Your task to perform on an android device: empty trash in the gmail app Image 0: 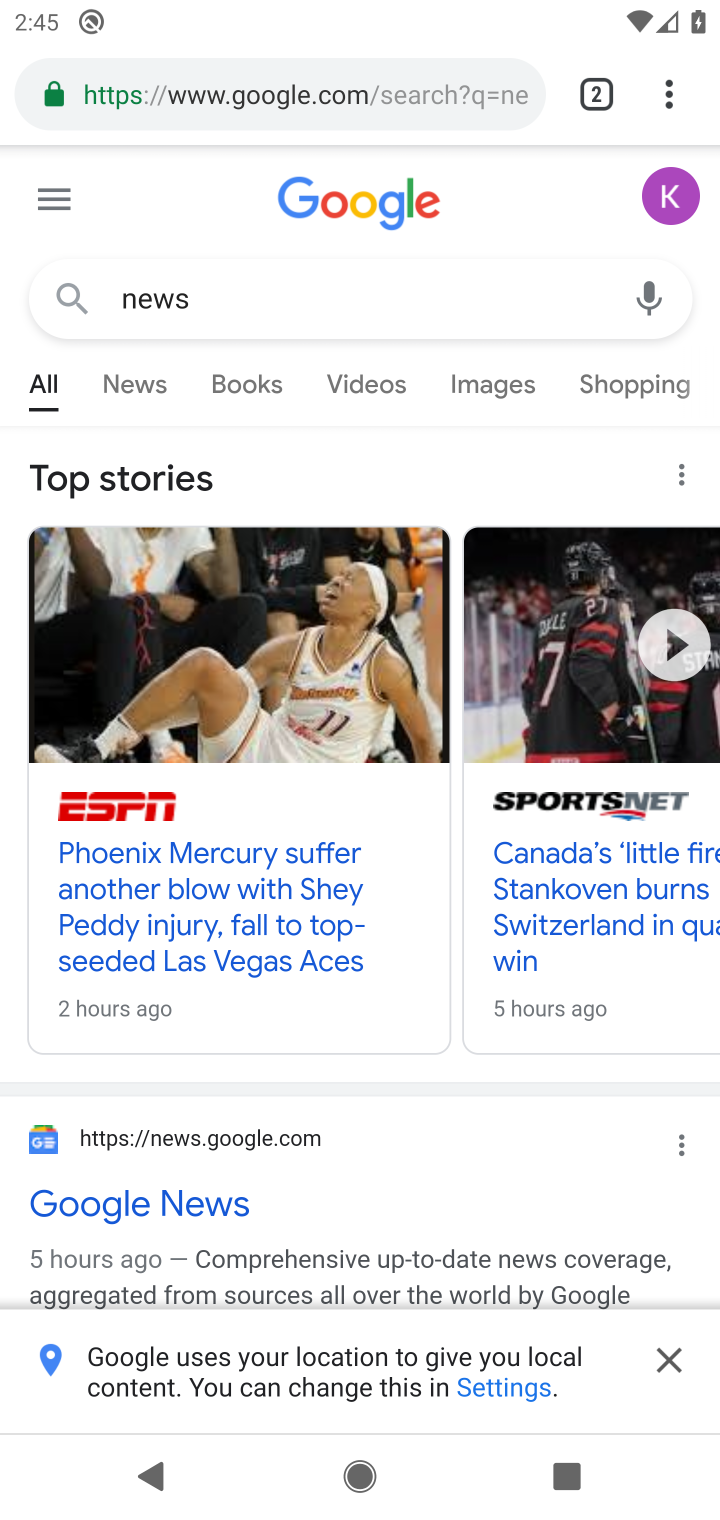
Step 0: press home button
Your task to perform on an android device: empty trash in the gmail app Image 1: 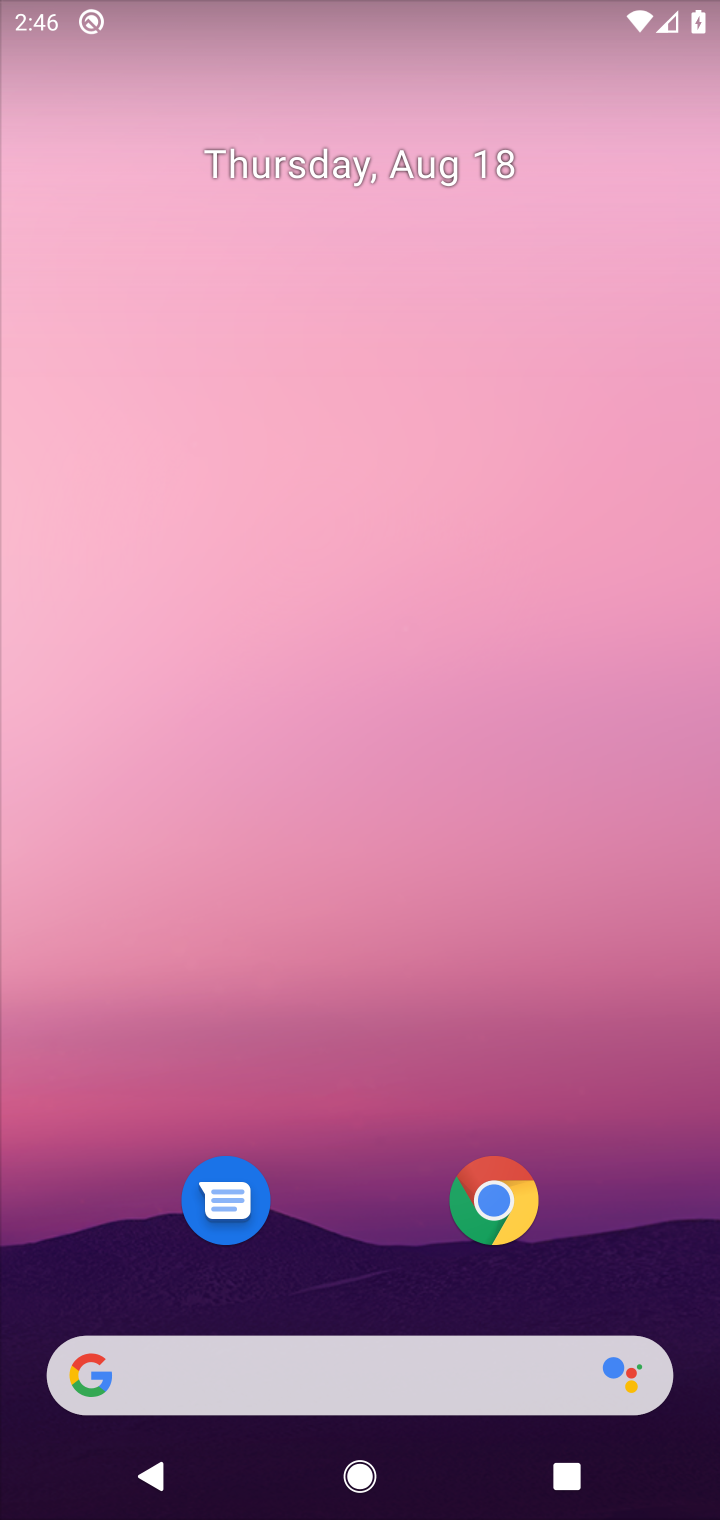
Step 1: drag from (314, 1115) to (379, 71)
Your task to perform on an android device: empty trash in the gmail app Image 2: 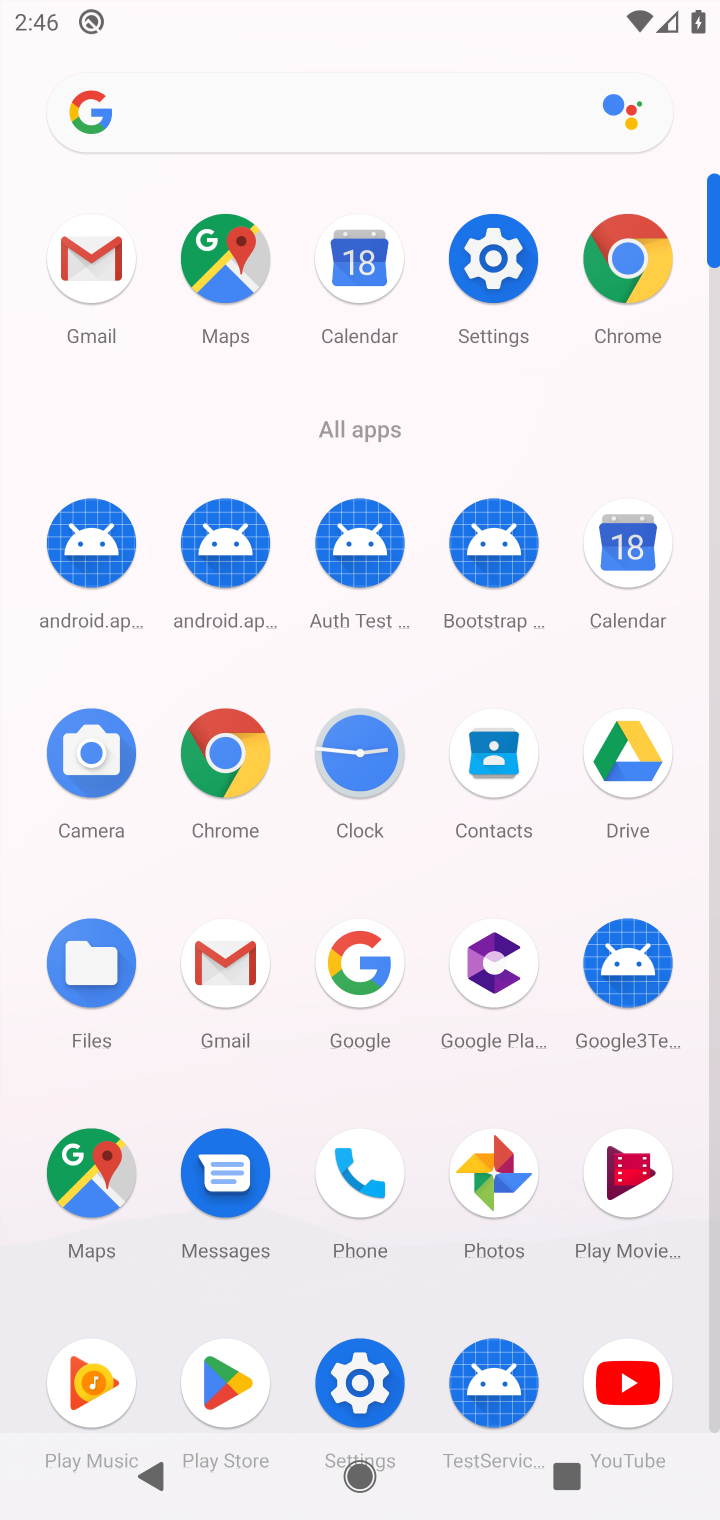
Step 2: click (218, 947)
Your task to perform on an android device: empty trash in the gmail app Image 3: 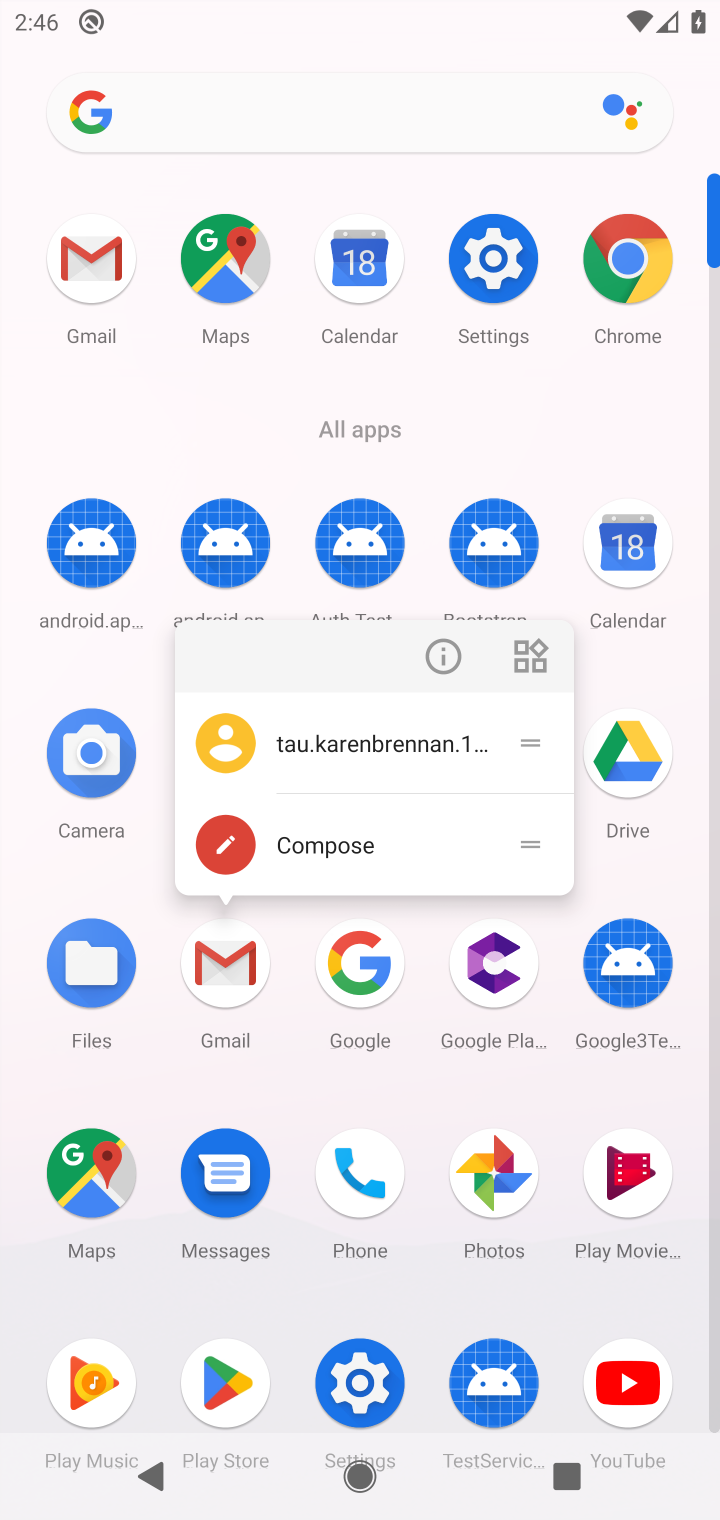
Step 3: click (229, 973)
Your task to perform on an android device: empty trash in the gmail app Image 4: 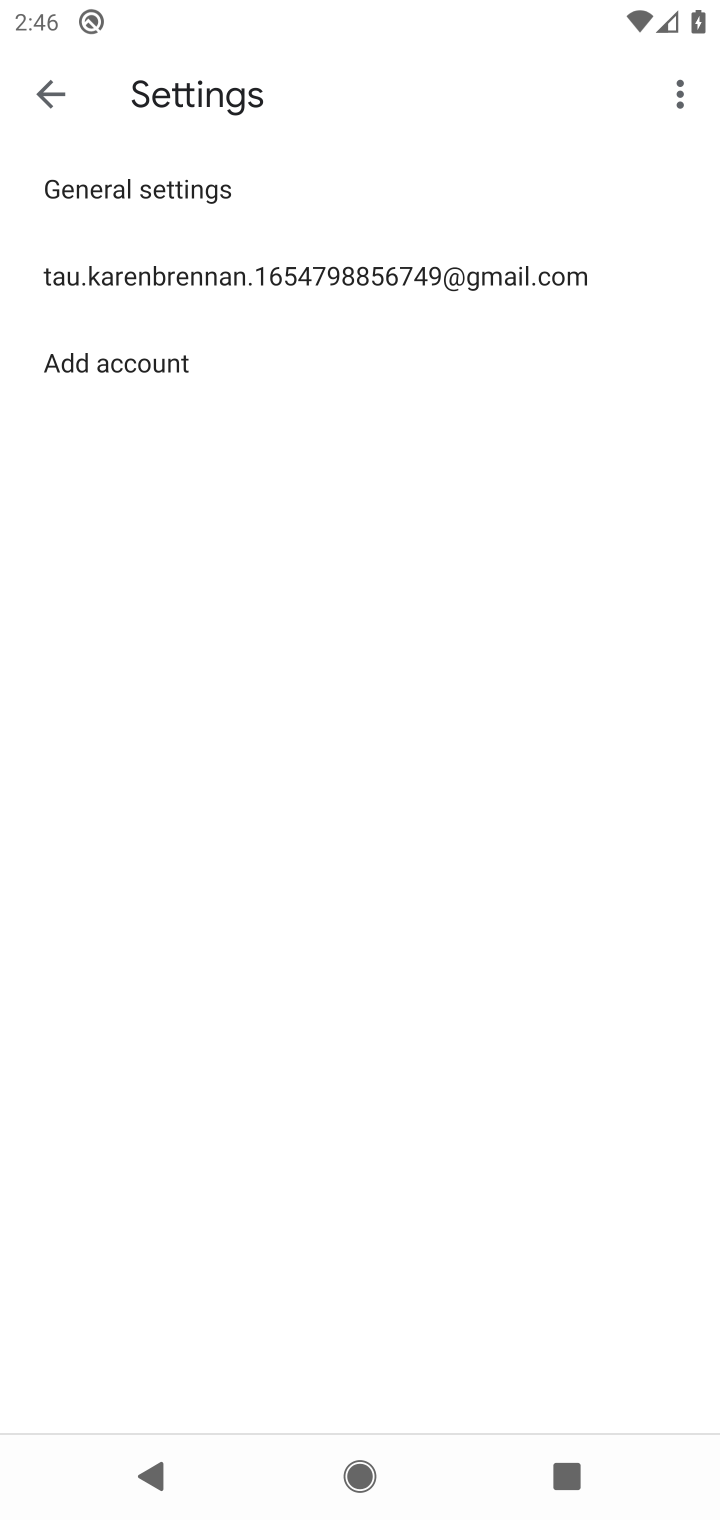
Step 4: click (273, 285)
Your task to perform on an android device: empty trash in the gmail app Image 5: 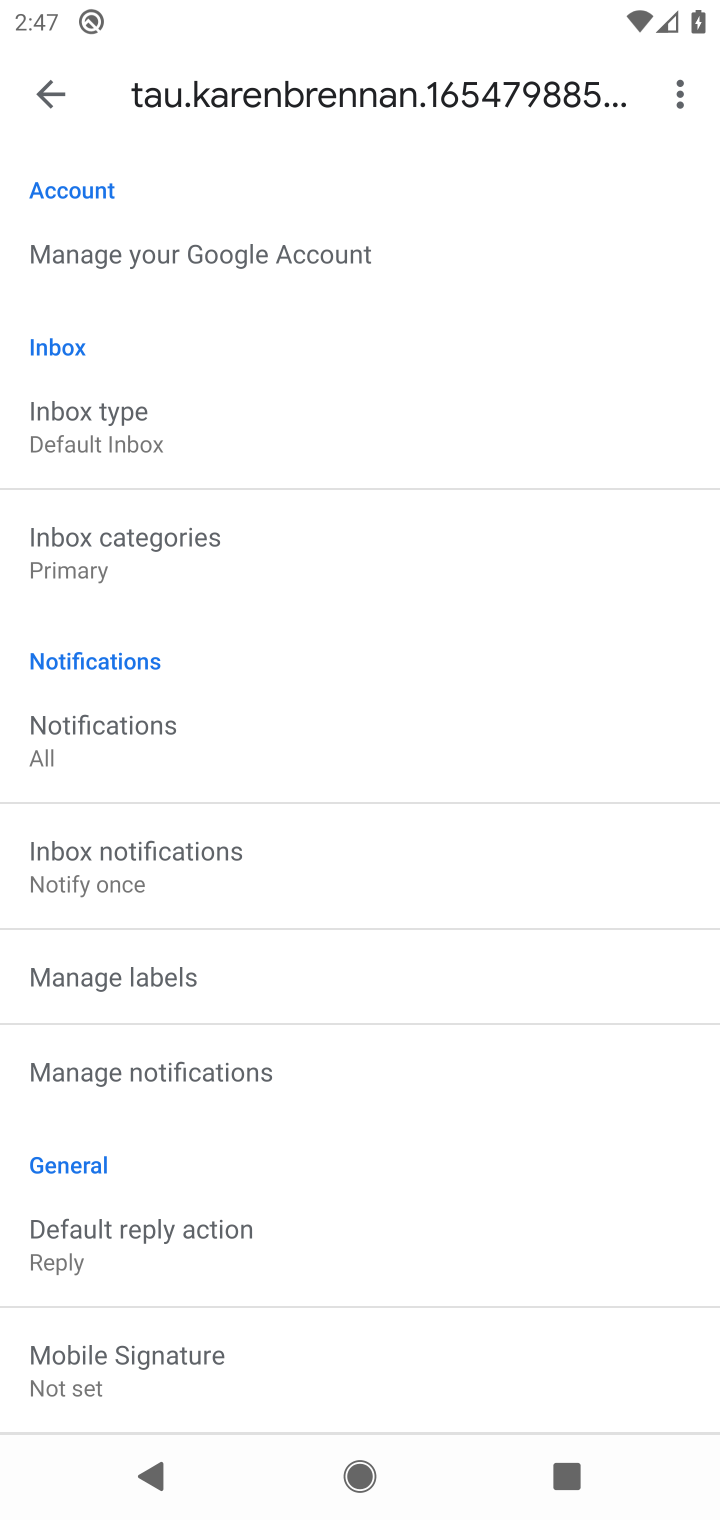
Step 5: drag from (360, 843) to (435, 155)
Your task to perform on an android device: empty trash in the gmail app Image 6: 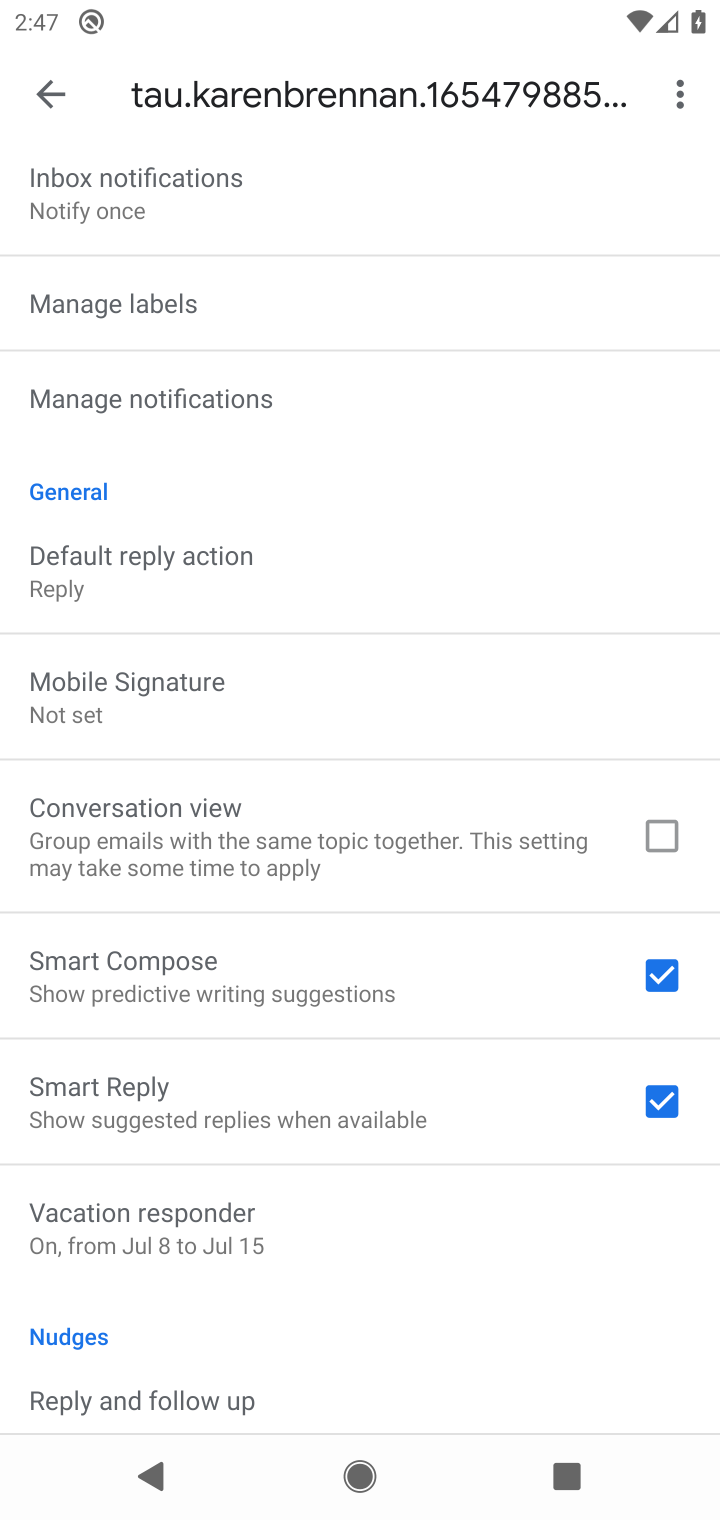
Step 6: click (40, 84)
Your task to perform on an android device: empty trash in the gmail app Image 7: 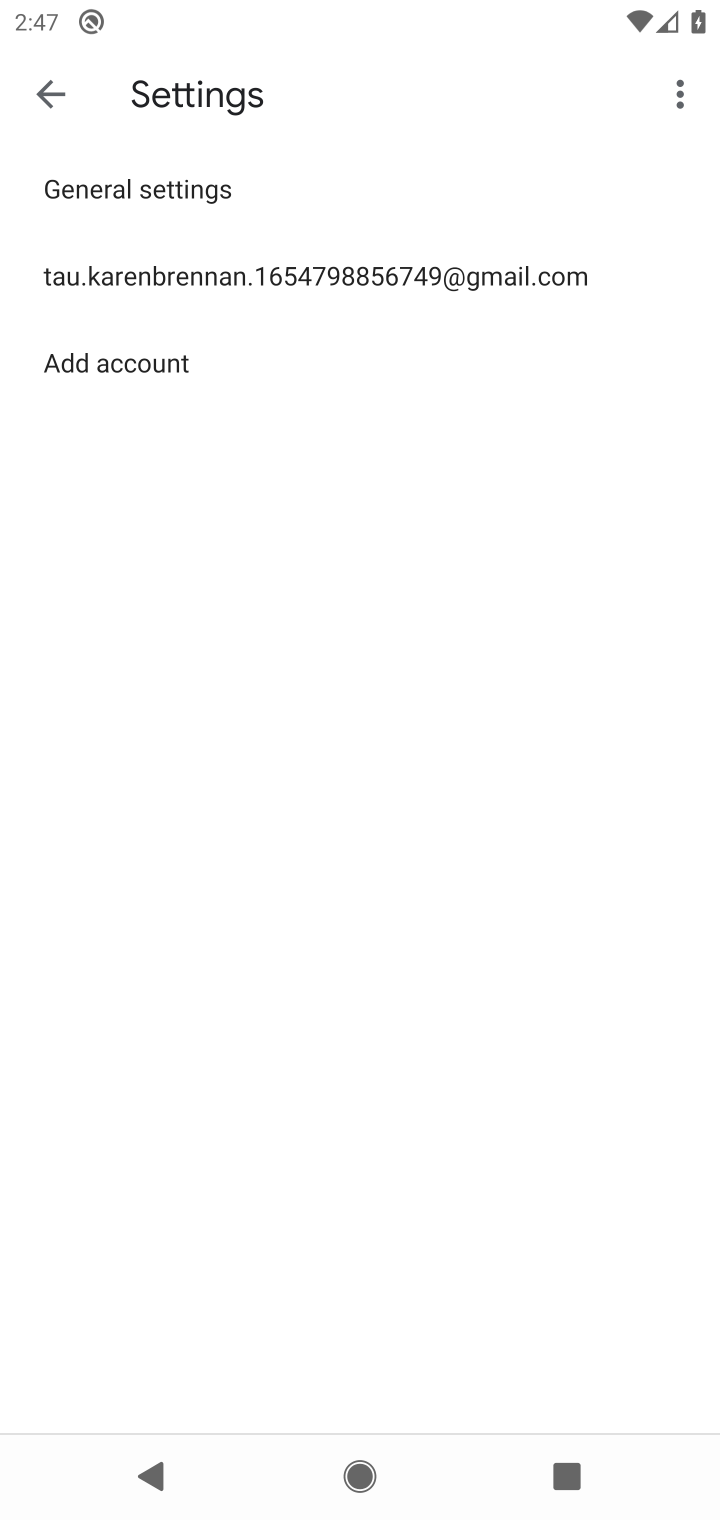
Step 7: click (39, 55)
Your task to perform on an android device: empty trash in the gmail app Image 8: 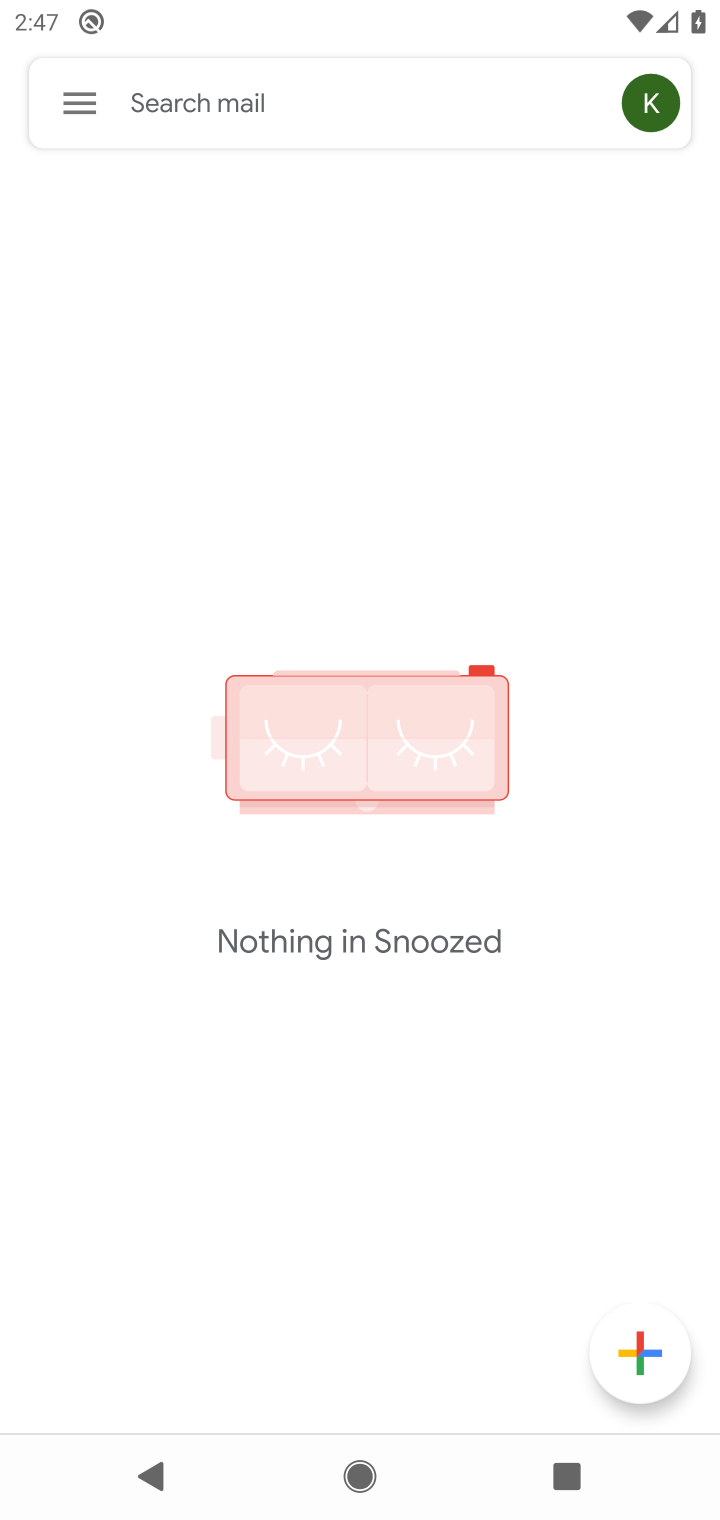
Step 8: click (94, 97)
Your task to perform on an android device: empty trash in the gmail app Image 9: 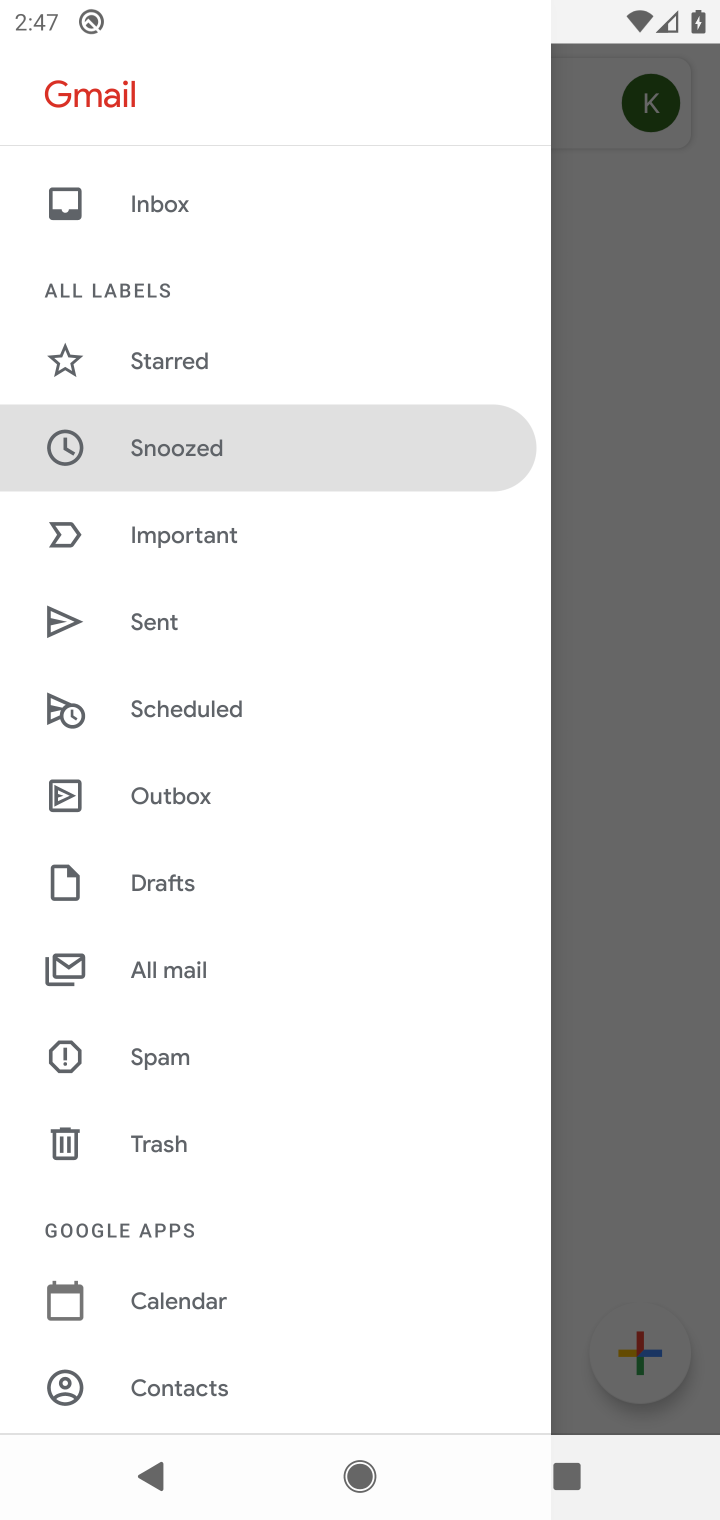
Step 9: drag from (142, 1170) to (146, 828)
Your task to perform on an android device: empty trash in the gmail app Image 10: 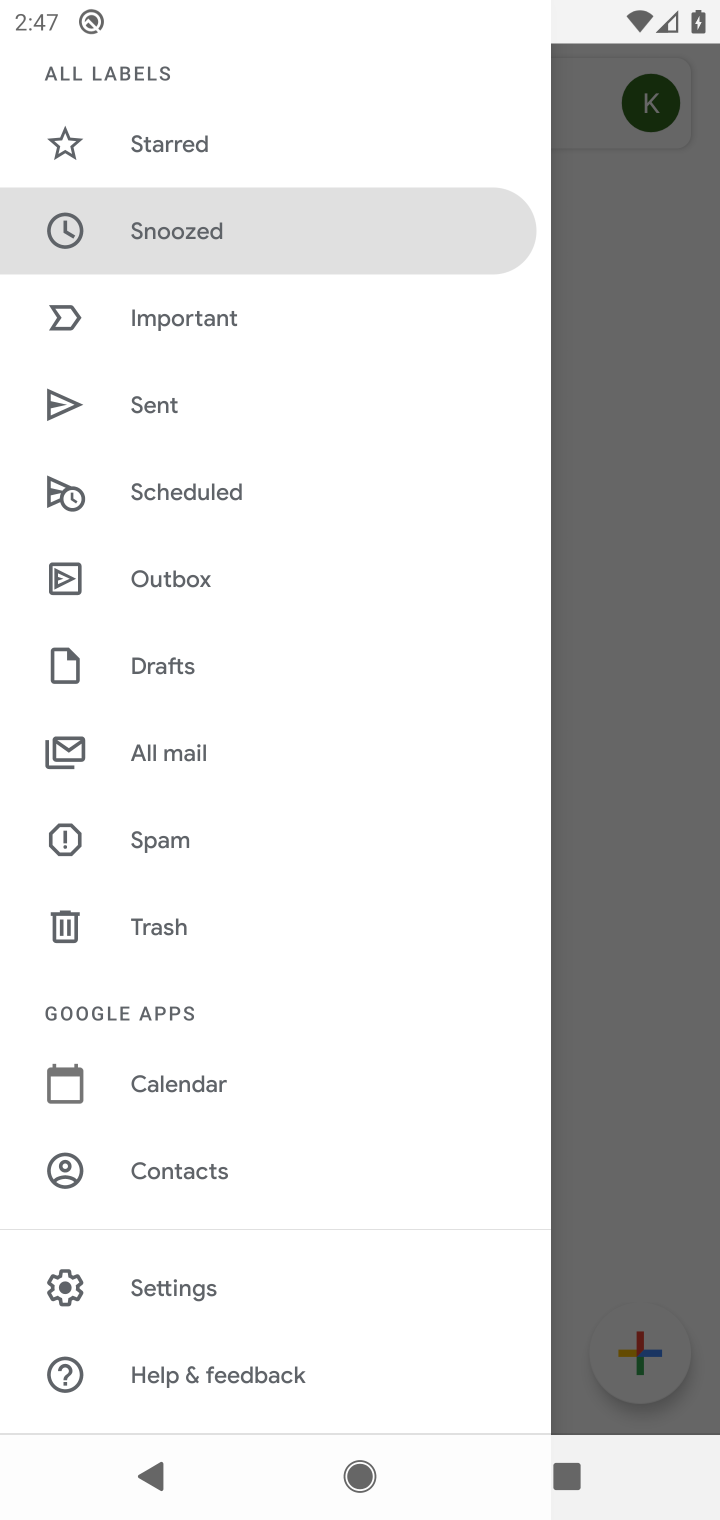
Step 10: click (162, 916)
Your task to perform on an android device: empty trash in the gmail app Image 11: 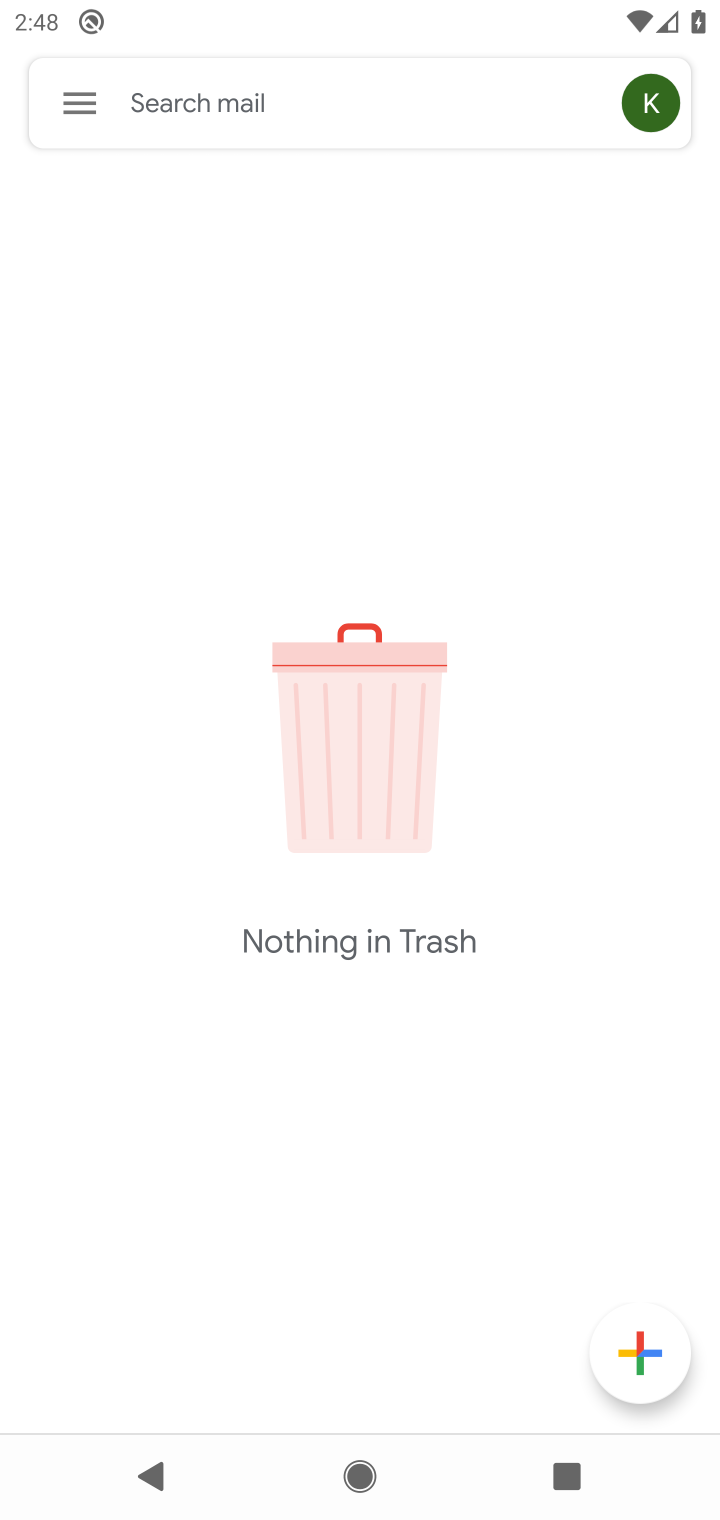
Step 11: task complete